Your task to perform on an android device: delete a single message in the gmail app Image 0: 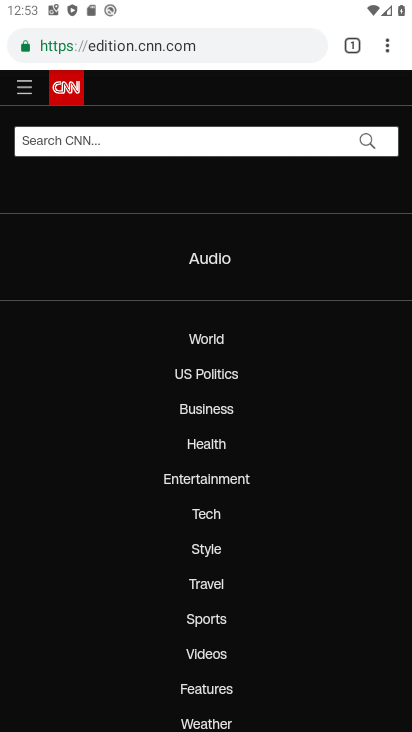
Step 0: press home button
Your task to perform on an android device: delete a single message in the gmail app Image 1: 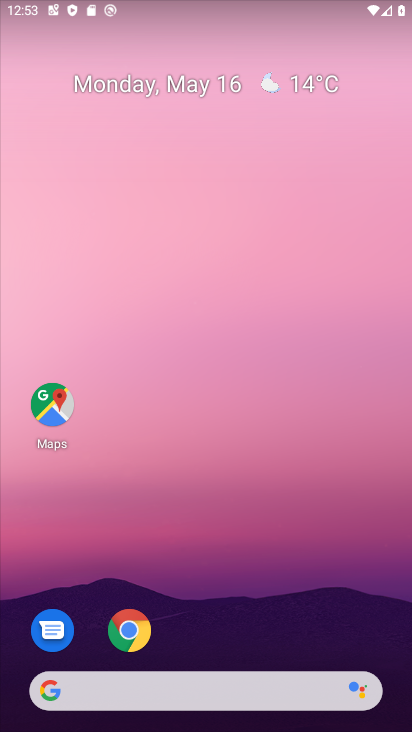
Step 1: drag from (297, 606) to (286, 4)
Your task to perform on an android device: delete a single message in the gmail app Image 2: 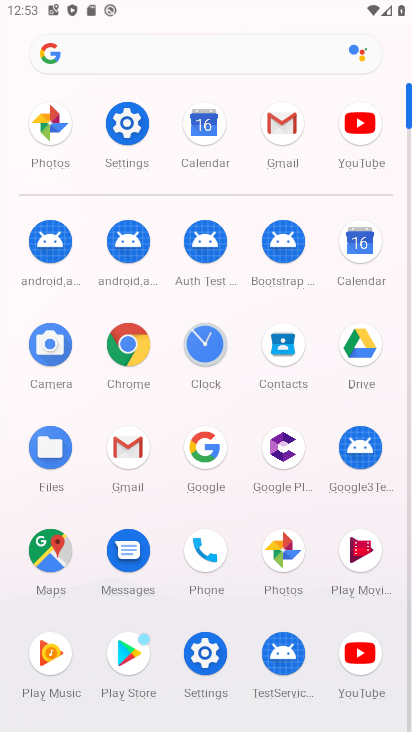
Step 2: click (294, 135)
Your task to perform on an android device: delete a single message in the gmail app Image 3: 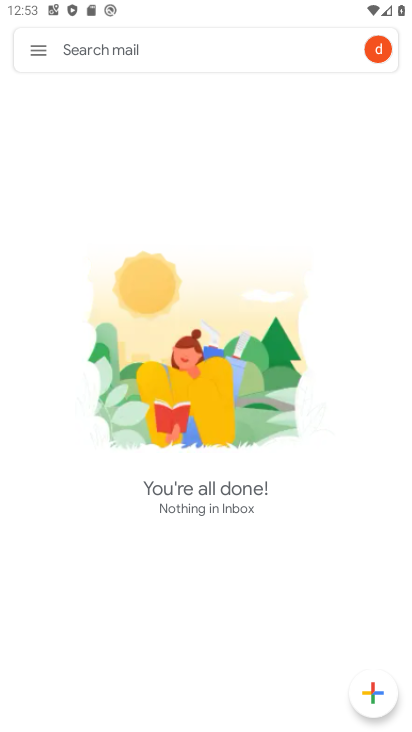
Step 3: task complete